Your task to perform on an android device: open a bookmark in the chrome app Image 0: 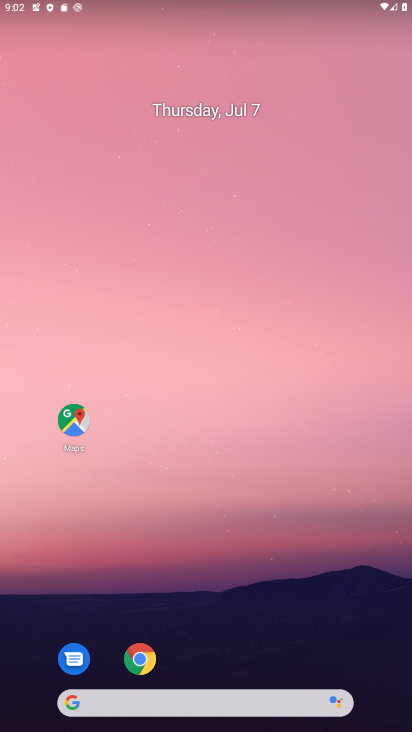
Step 0: click (137, 658)
Your task to perform on an android device: open a bookmark in the chrome app Image 1: 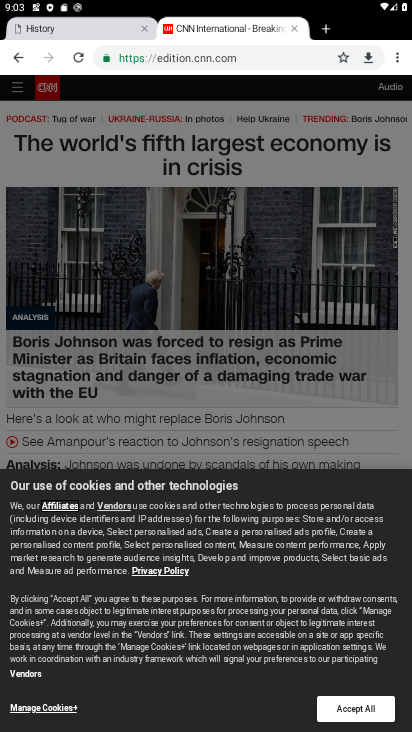
Step 1: click (396, 55)
Your task to perform on an android device: open a bookmark in the chrome app Image 2: 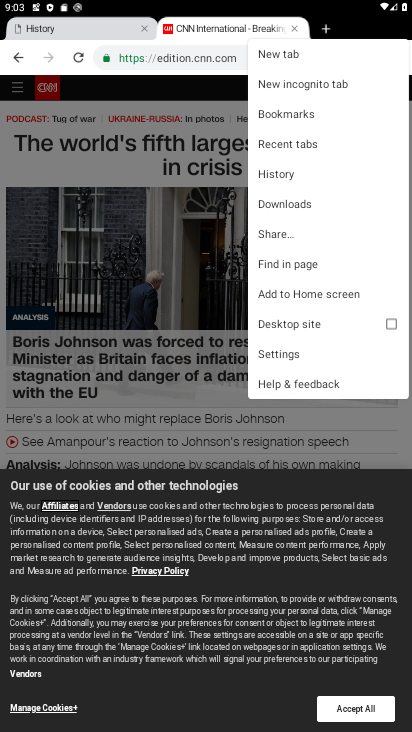
Step 2: click (293, 116)
Your task to perform on an android device: open a bookmark in the chrome app Image 3: 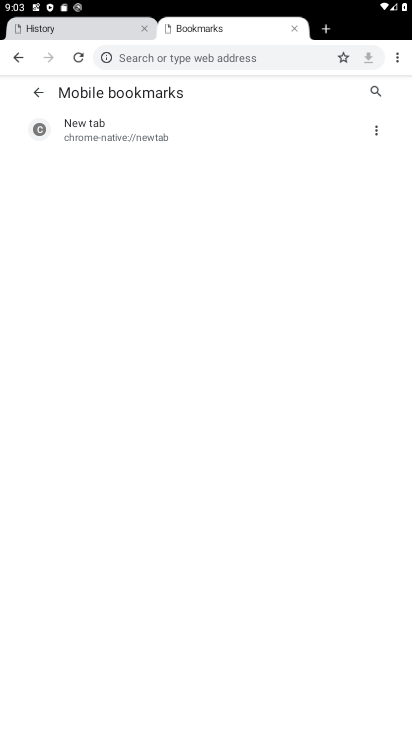
Step 3: click (175, 133)
Your task to perform on an android device: open a bookmark in the chrome app Image 4: 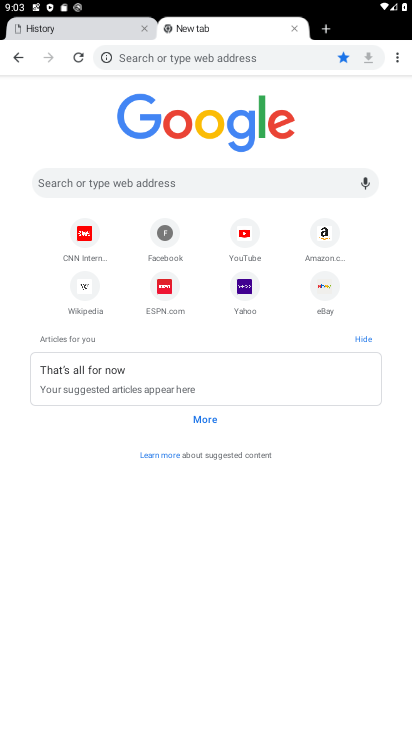
Step 4: task complete